Your task to perform on an android device: Open the Play Movies app and select the watchlist tab. Image 0: 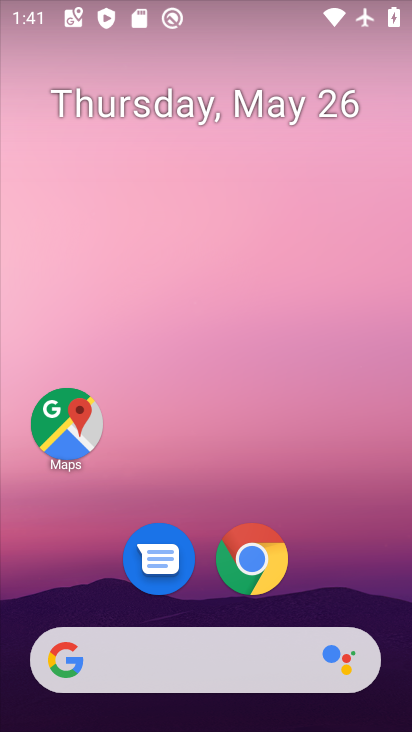
Step 0: drag from (166, 658) to (239, 140)
Your task to perform on an android device: Open the Play Movies app and select the watchlist tab. Image 1: 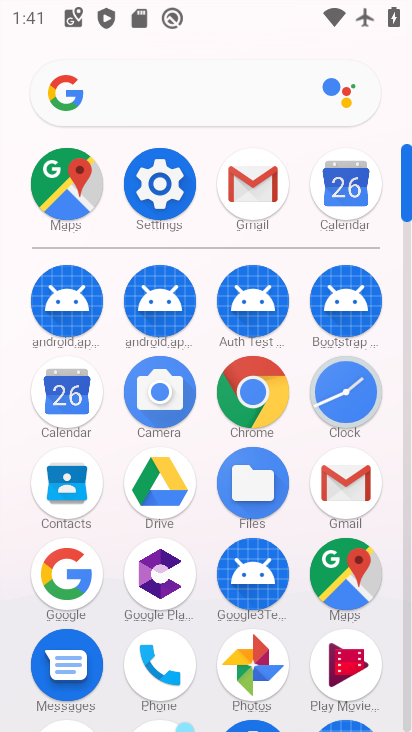
Step 1: click (346, 666)
Your task to perform on an android device: Open the Play Movies app and select the watchlist tab. Image 2: 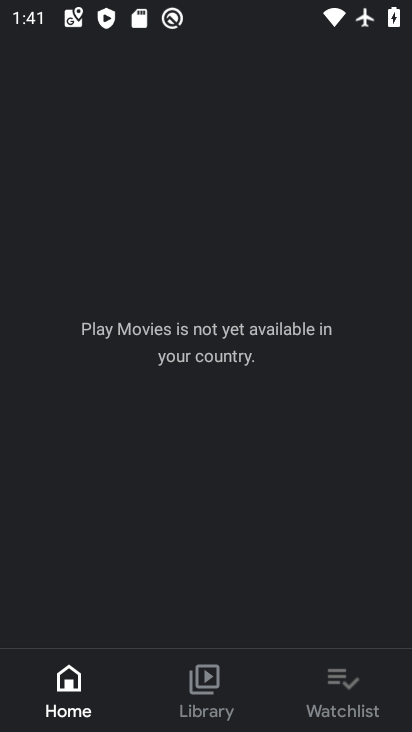
Step 2: click (346, 686)
Your task to perform on an android device: Open the Play Movies app and select the watchlist tab. Image 3: 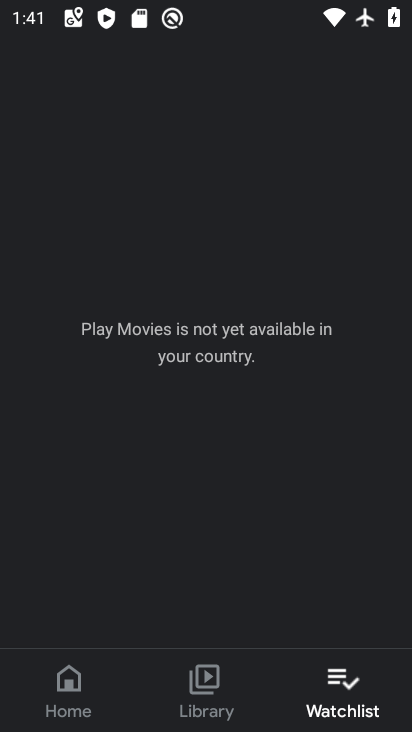
Step 3: task complete